Your task to perform on an android device: empty trash in the gmail app Image 0: 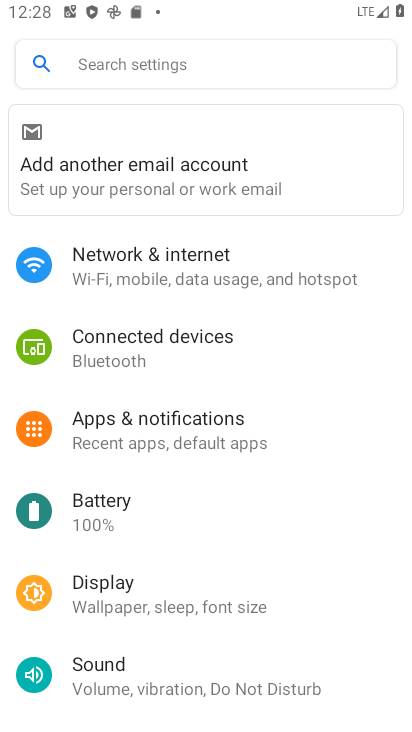
Step 0: press home button
Your task to perform on an android device: empty trash in the gmail app Image 1: 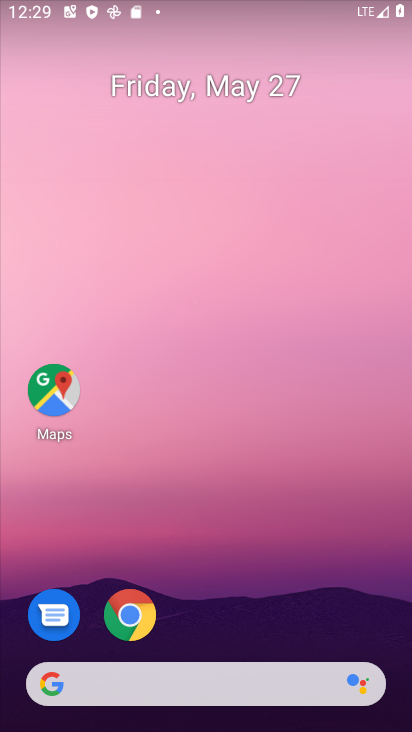
Step 1: drag from (293, 660) to (375, 0)
Your task to perform on an android device: empty trash in the gmail app Image 2: 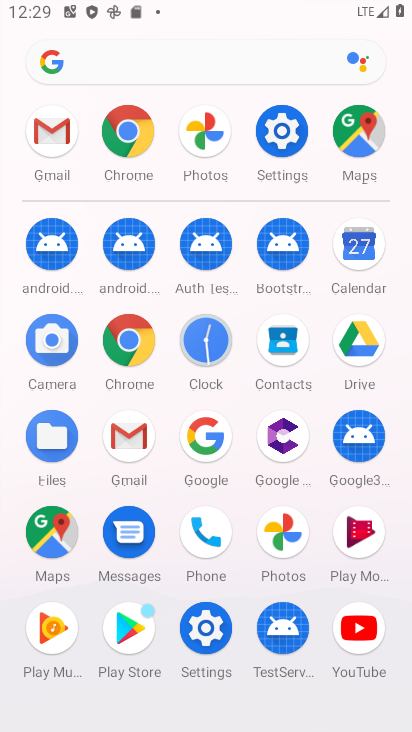
Step 2: click (116, 432)
Your task to perform on an android device: empty trash in the gmail app Image 3: 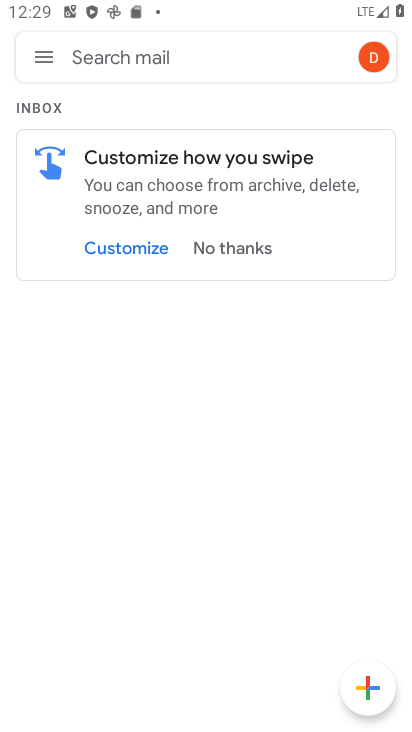
Step 3: click (370, 54)
Your task to perform on an android device: empty trash in the gmail app Image 4: 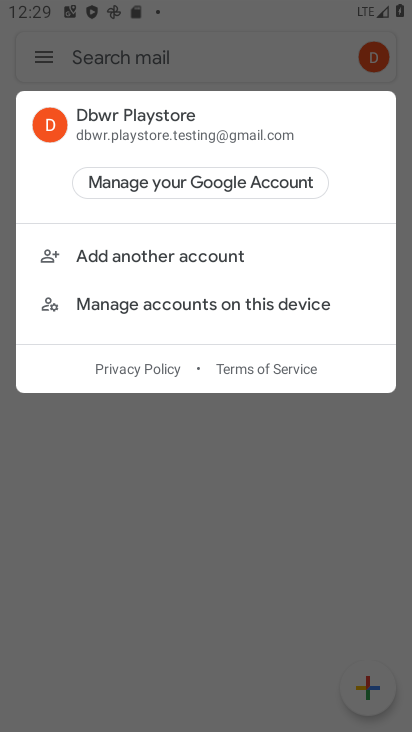
Step 4: click (283, 479)
Your task to perform on an android device: empty trash in the gmail app Image 5: 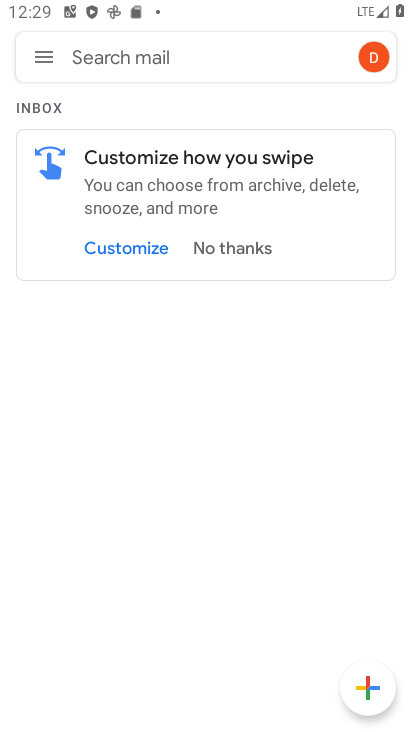
Step 5: click (46, 58)
Your task to perform on an android device: empty trash in the gmail app Image 6: 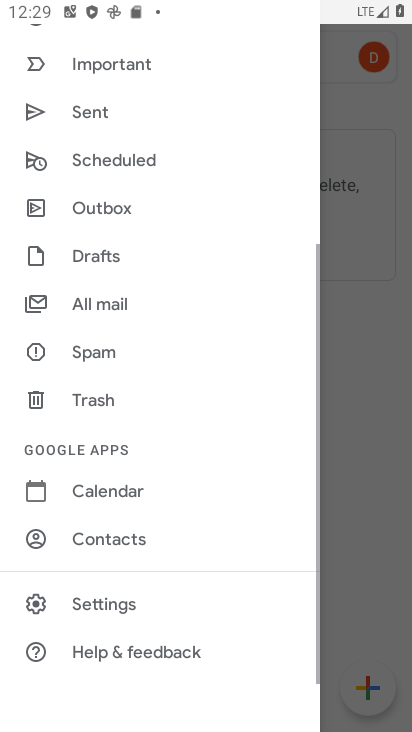
Step 6: click (99, 406)
Your task to perform on an android device: empty trash in the gmail app Image 7: 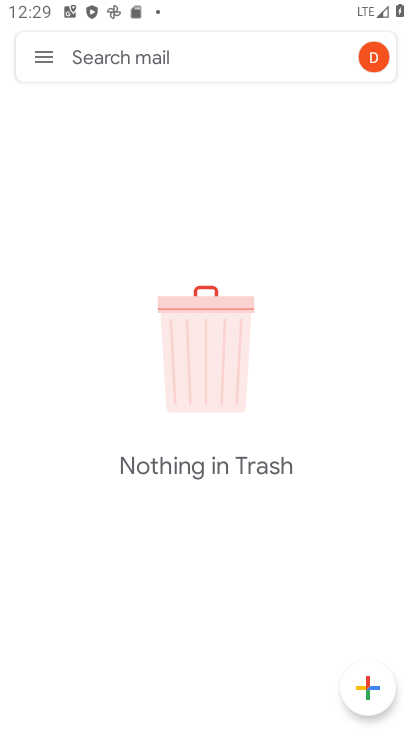
Step 7: task complete